Your task to perform on an android device: toggle translation in the chrome app Image 0: 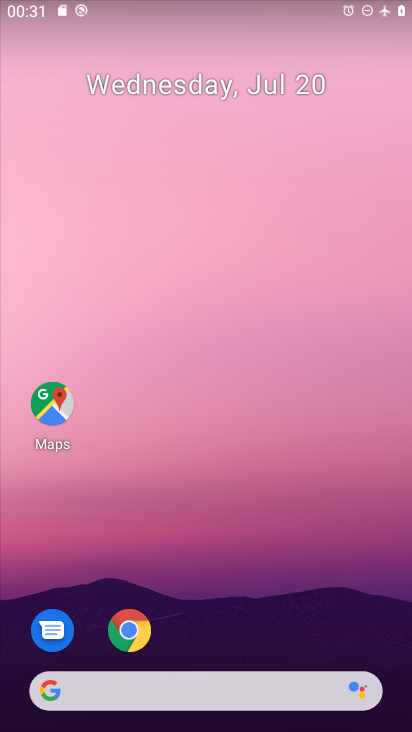
Step 0: click (137, 618)
Your task to perform on an android device: toggle translation in the chrome app Image 1: 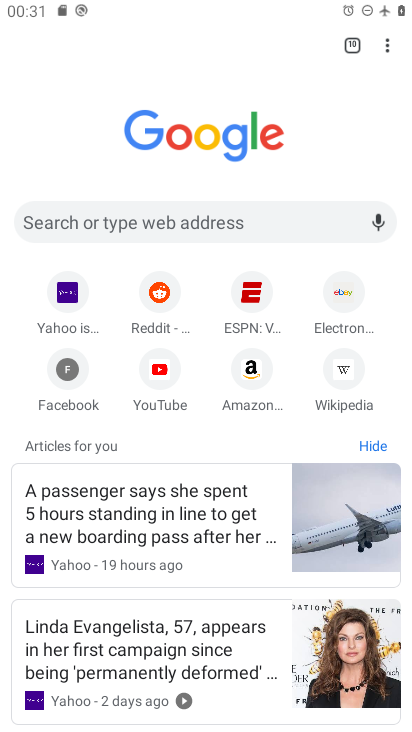
Step 1: click (384, 51)
Your task to perform on an android device: toggle translation in the chrome app Image 2: 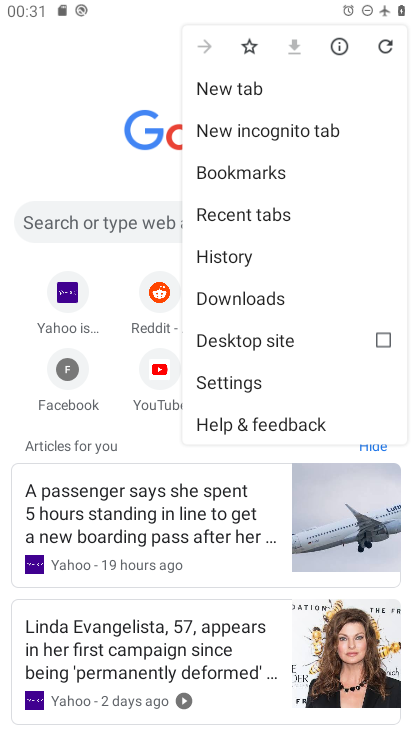
Step 2: click (267, 381)
Your task to perform on an android device: toggle translation in the chrome app Image 3: 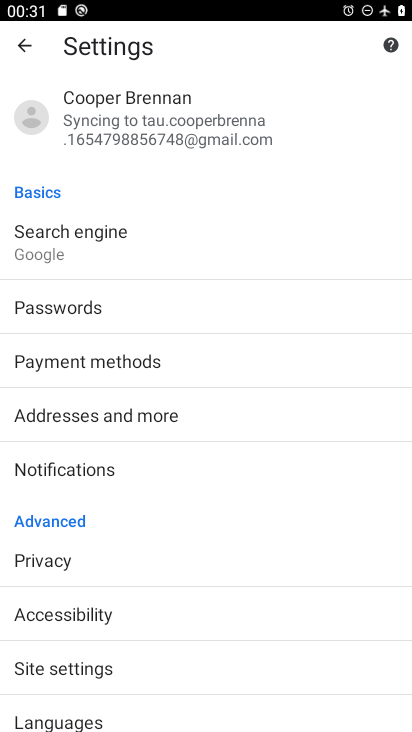
Step 3: drag from (140, 683) to (141, 461)
Your task to perform on an android device: toggle translation in the chrome app Image 4: 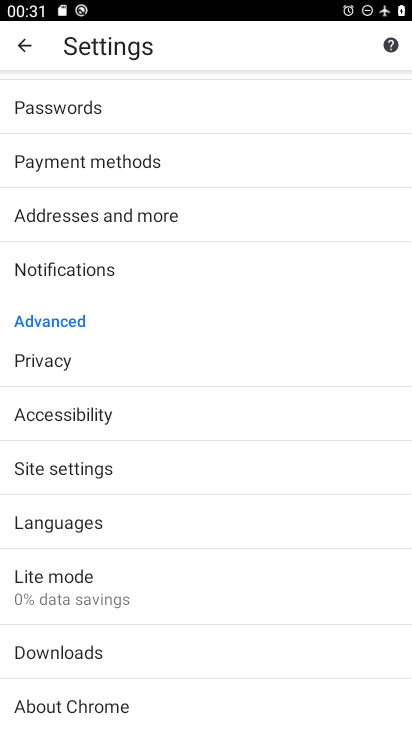
Step 4: click (101, 526)
Your task to perform on an android device: toggle translation in the chrome app Image 5: 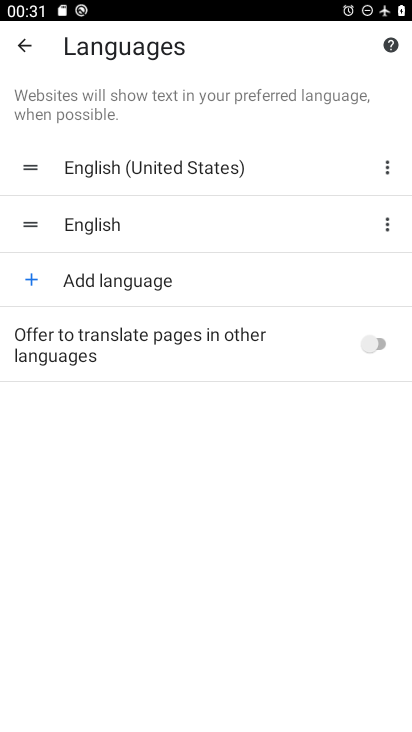
Step 5: click (388, 338)
Your task to perform on an android device: toggle translation in the chrome app Image 6: 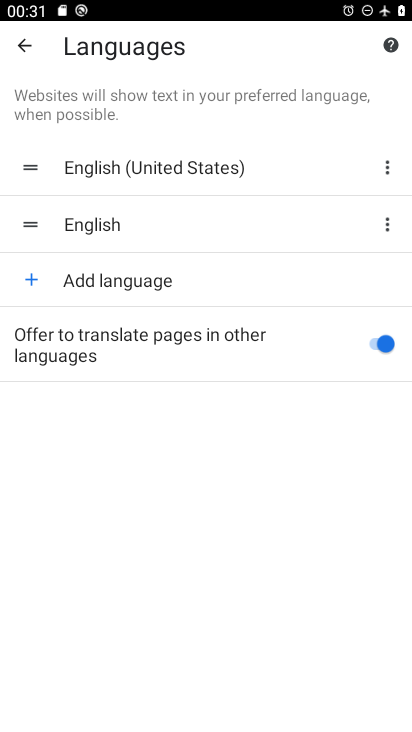
Step 6: task complete